Your task to perform on an android device: Go to notification settings Image 0: 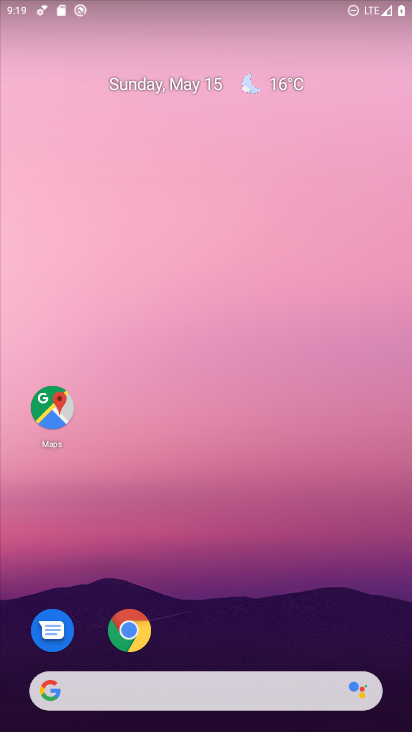
Step 0: drag from (173, 622) to (158, 168)
Your task to perform on an android device: Go to notification settings Image 1: 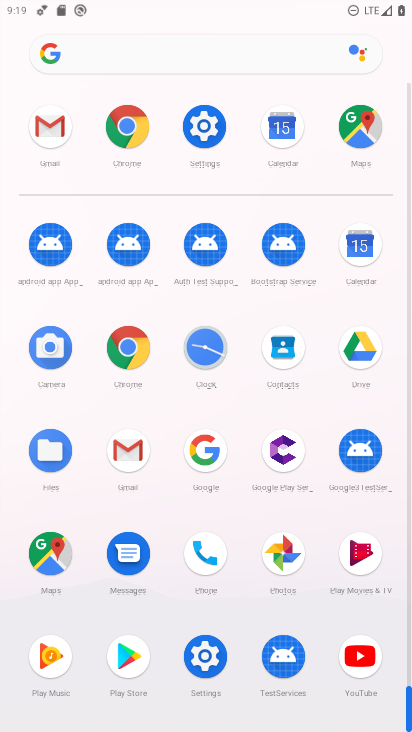
Step 1: click (196, 140)
Your task to perform on an android device: Go to notification settings Image 2: 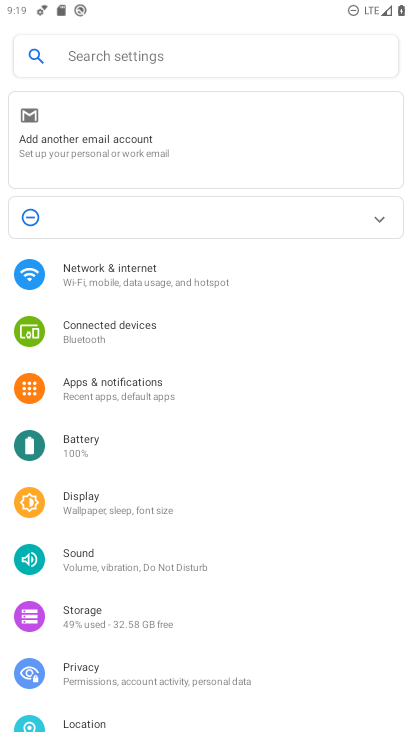
Step 2: click (165, 372)
Your task to perform on an android device: Go to notification settings Image 3: 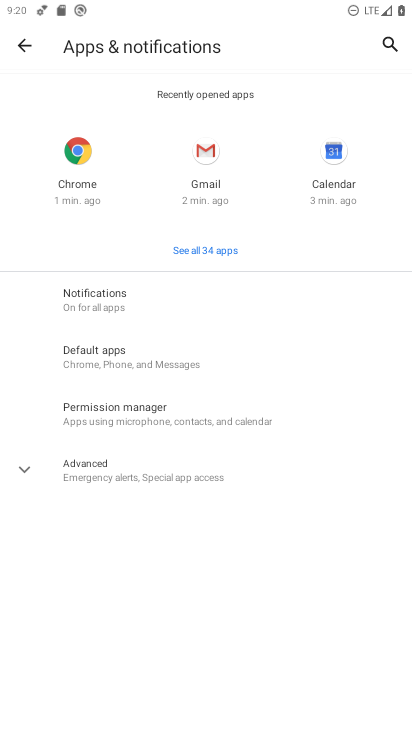
Step 3: click (134, 282)
Your task to perform on an android device: Go to notification settings Image 4: 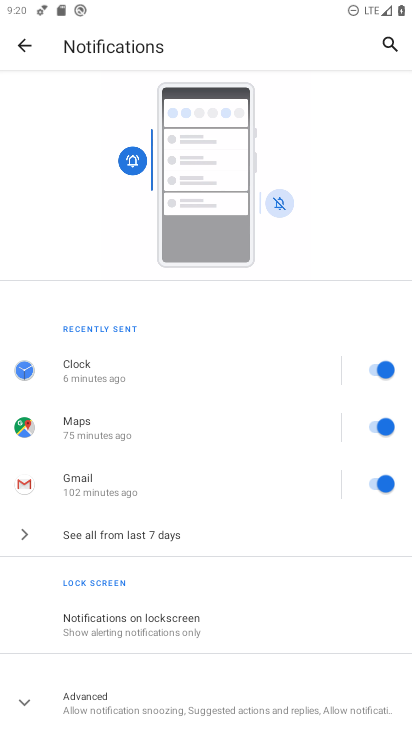
Step 4: task complete